Your task to perform on an android device: Show me popular games on the Play Store Image 0: 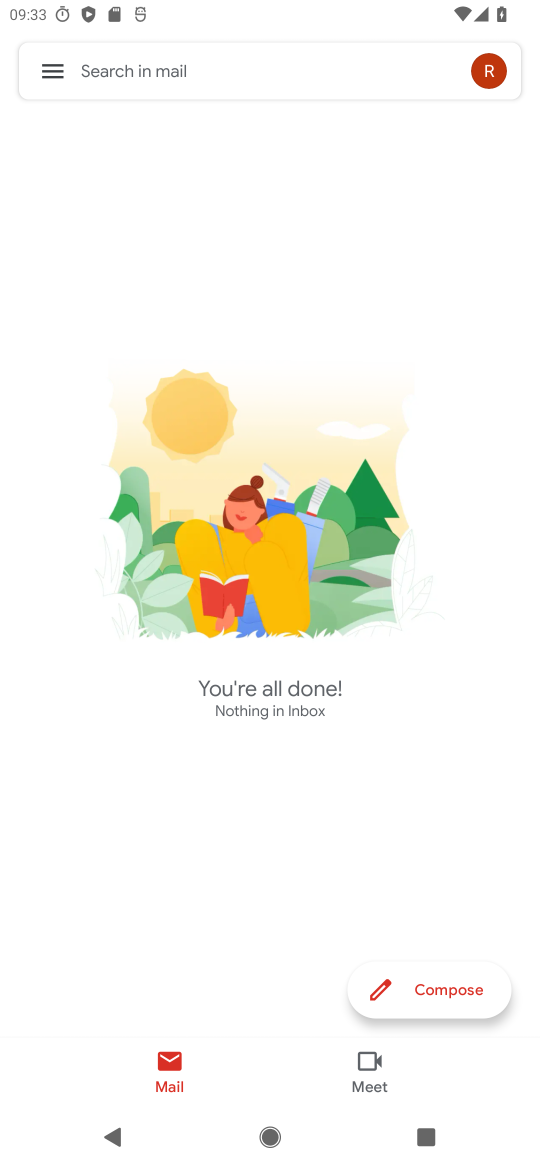
Step 0: press home button
Your task to perform on an android device: Show me popular games on the Play Store Image 1: 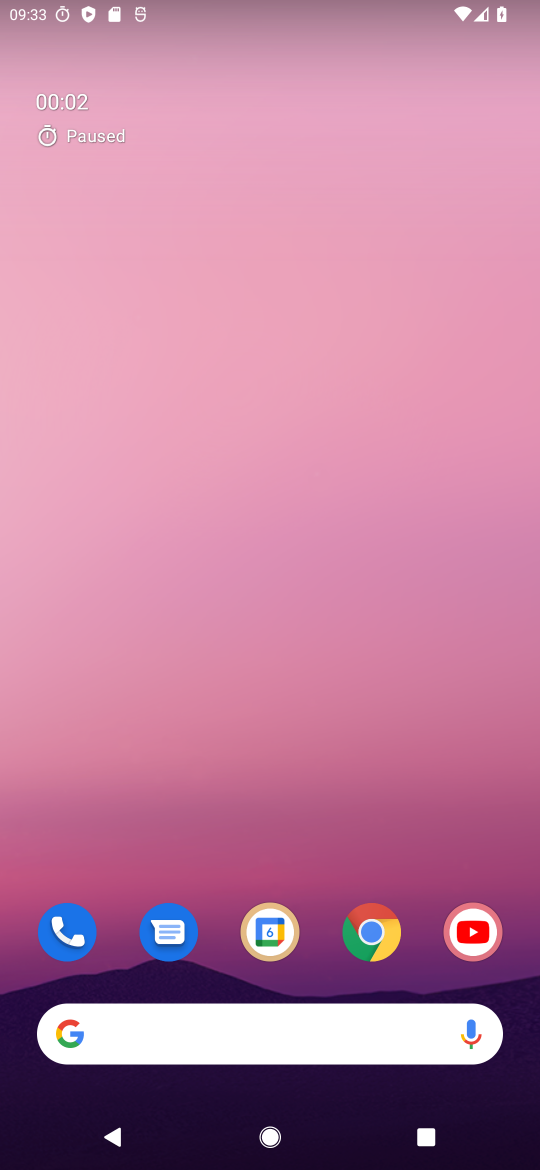
Step 1: drag from (241, 1020) to (427, 116)
Your task to perform on an android device: Show me popular games on the Play Store Image 2: 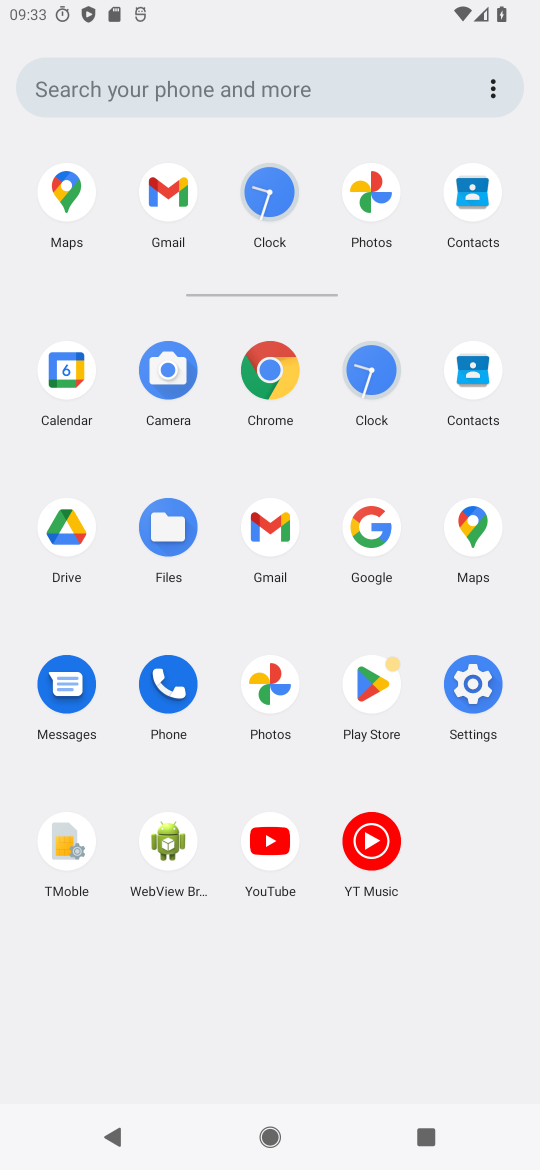
Step 2: click (367, 683)
Your task to perform on an android device: Show me popular games on the Play Store Image 3: 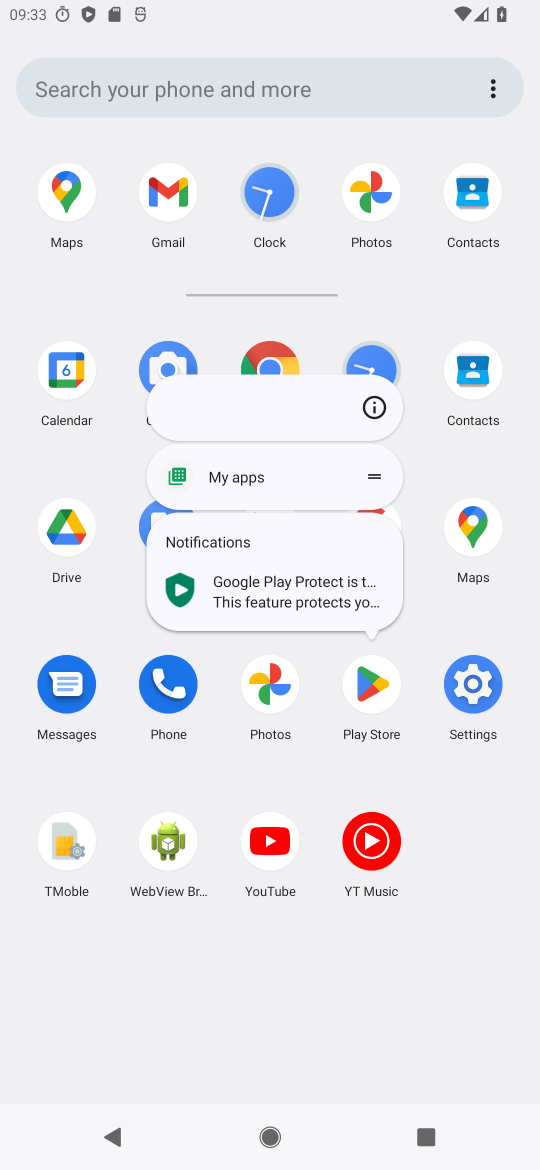
Step 3: click (373, 681)
Your task to perform on an android device: Show me popular games on the Play Store Image 4: 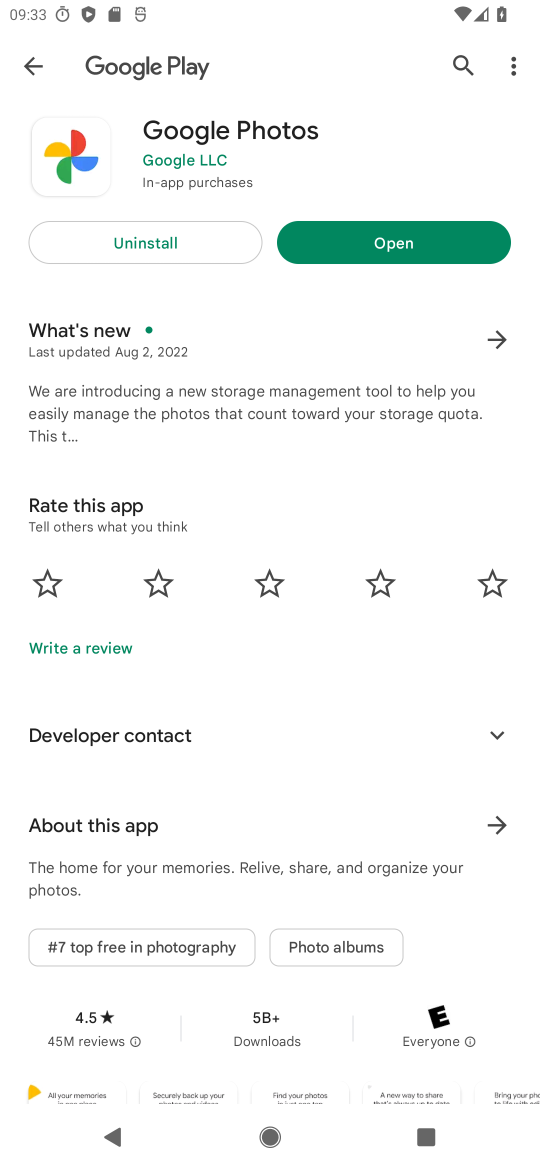
Step 4: click (36, 70)
Your task to perform on an android device: Show me popular games on the Play Store Image 5: 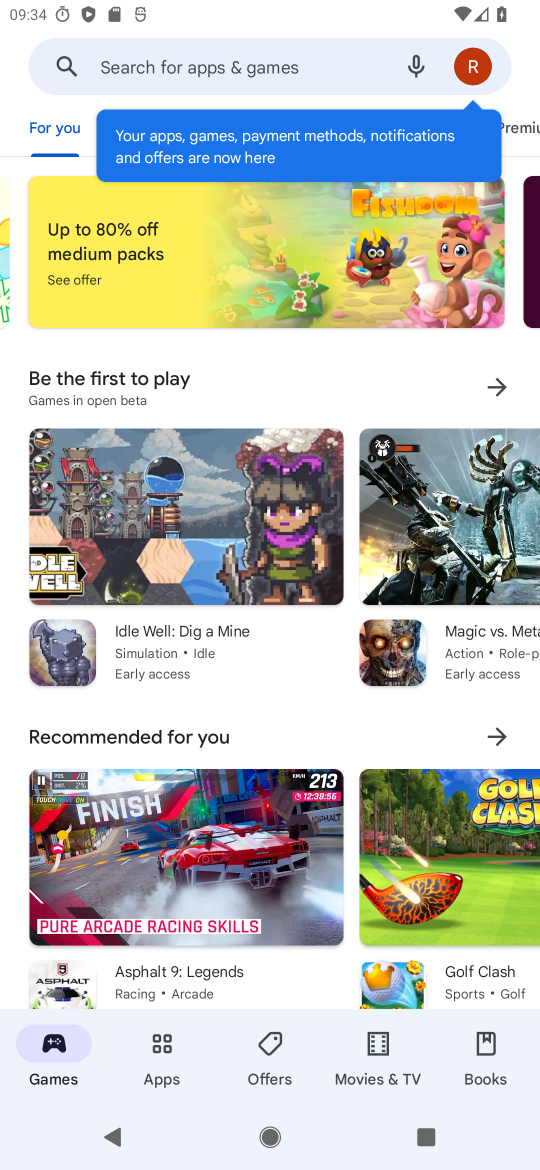
Step 5: task complete